Your task to perform on an android device: turn off javascript in the chrome app Image 0: 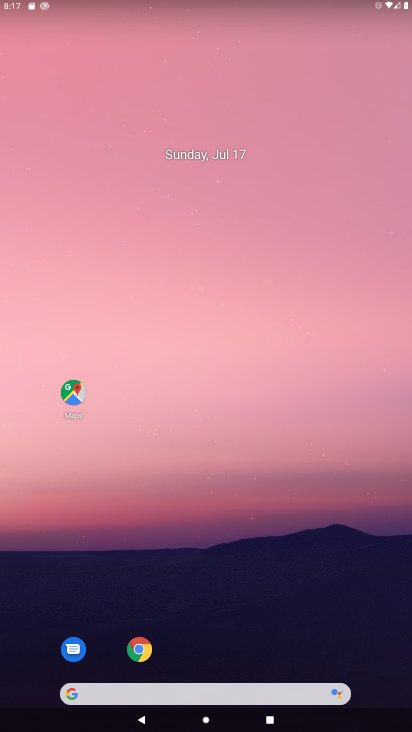
Step 0: drag from (223, 672) to (241, 57)
Your task to perform on an android device: turn off javascript in the chrome app Image 1: 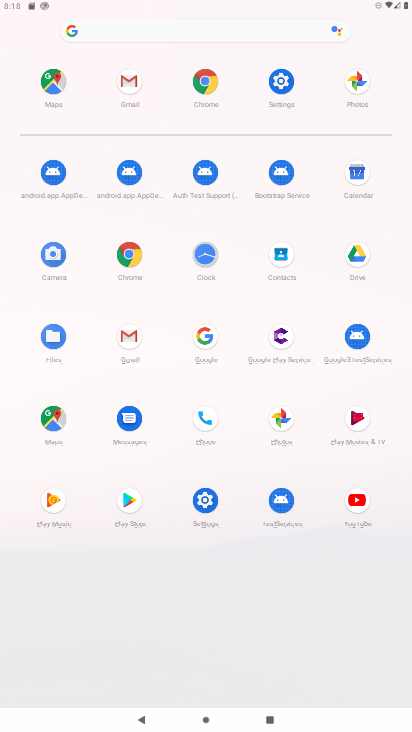
Step 1: click (122, 254)
Your task to perform on an android device: turn off javascript in the chrome app Image 2: 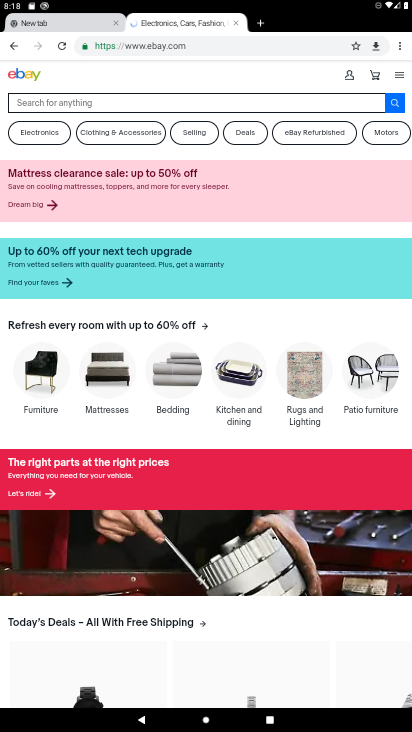
Step 2: click (405, 30)
Your task to perform on an android device: turn off javascript in the chrome app Image 3: 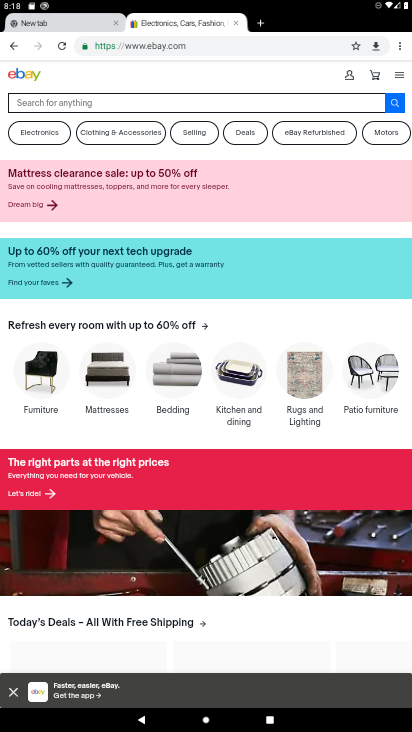
Step 3: click (409, 49)
Your task to perform on an android device: turn off javascript in the chrome app Image 4: 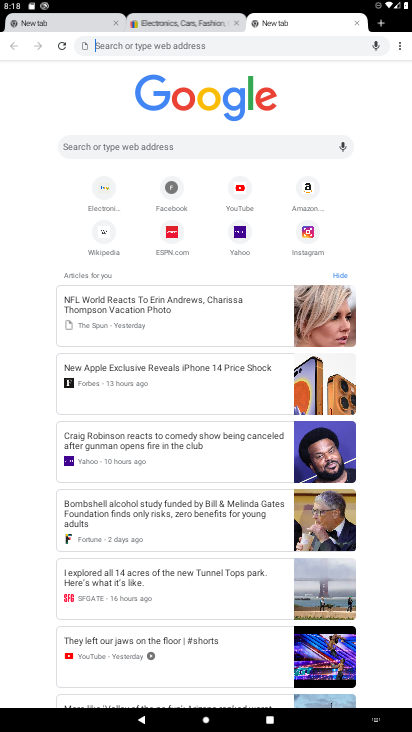
Step 4: drag from (400, 38) to (303, 211)
Your task to perform on an android device: turn off javascript in the chrome app Image 5: 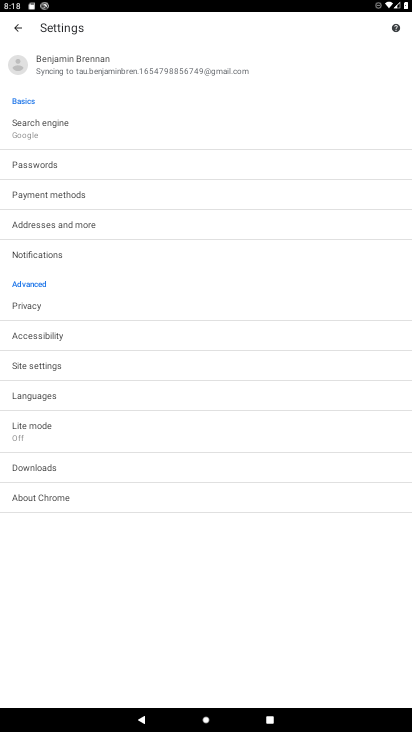
Step 5: click (17, 363)
Your task to perform on an android device: turn off javascript in the chrome app Image 6: 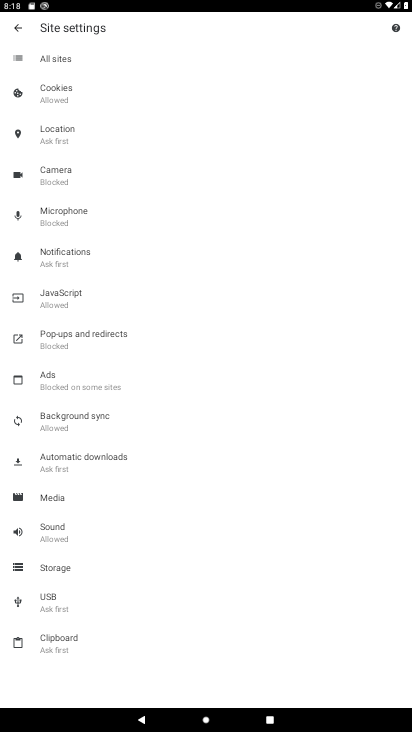
Step 6: click (32, 311)
Your task to perform on an android device: turn off javascript in the chrome app Image 7: 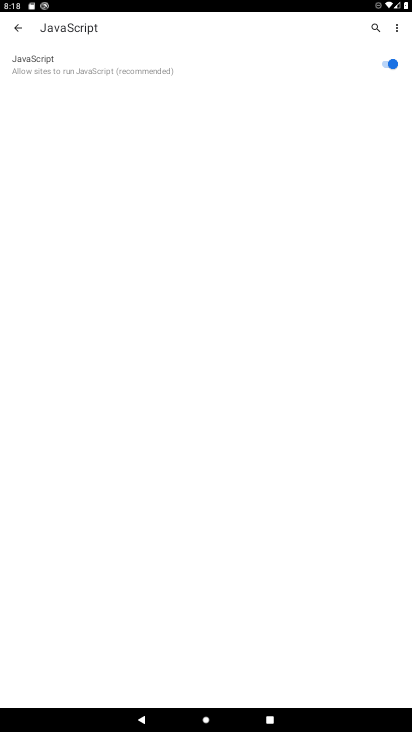
Step 7: click (385, 55)
Your task to perform on an android device: turn off javascript in the chrome app Image 8: 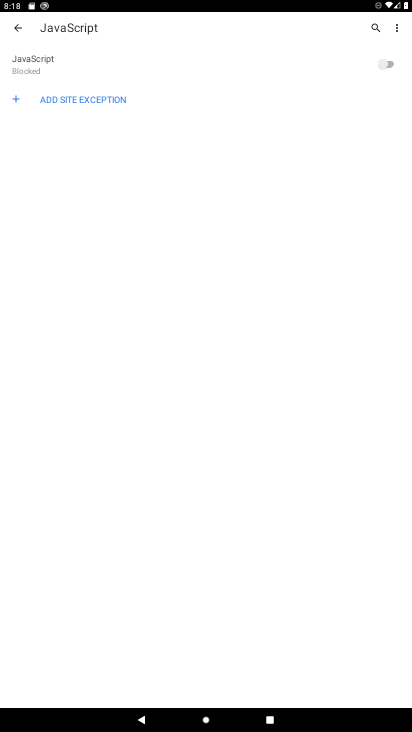
Step 8: task complete